Your task to perform on an android device: Do I have any events this weekend? Image 0: 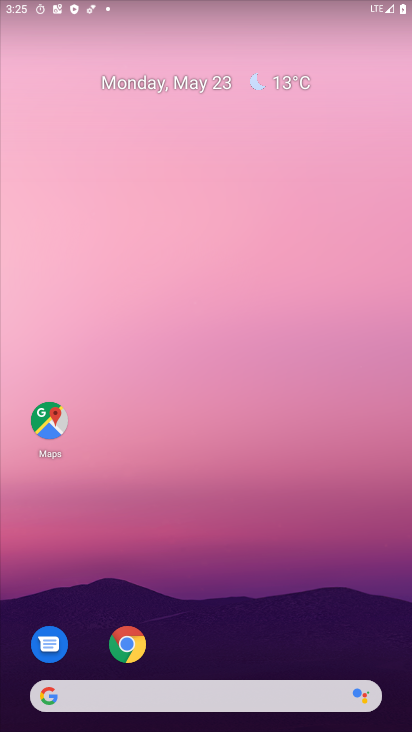
Step 0: drag from (210, 674) to (153, 75)
Your task to perform on an android device: Do I have any events this weekend? Image 1: 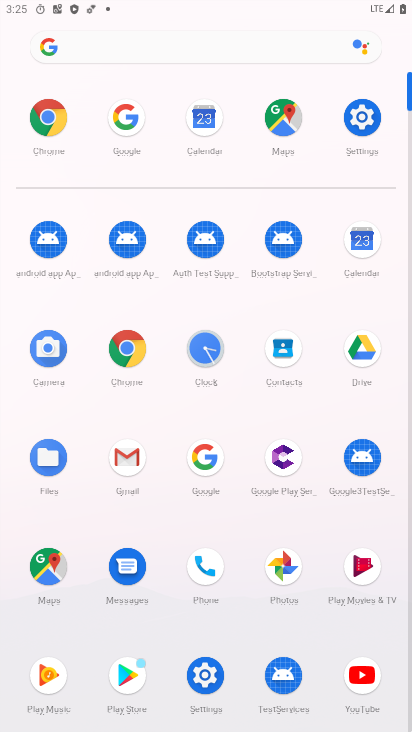
Step 1: click (366, 247)
Your task to perform on an android device: Do I have any events this weekend? Image 2: 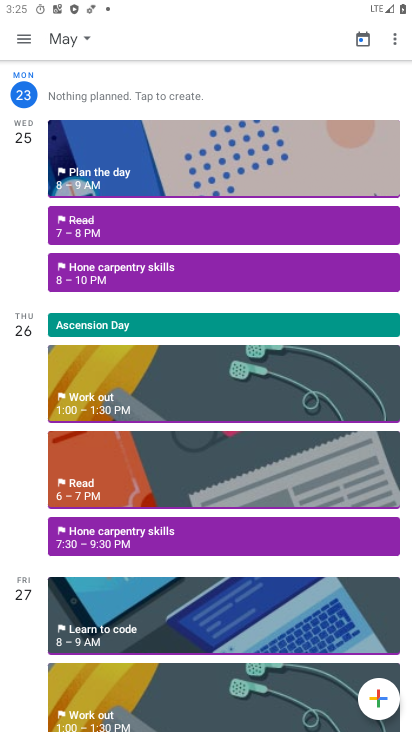
Step 2: click (24, 49)
Your task to perform on an android device: Do I have any events this weekend? Image 3: 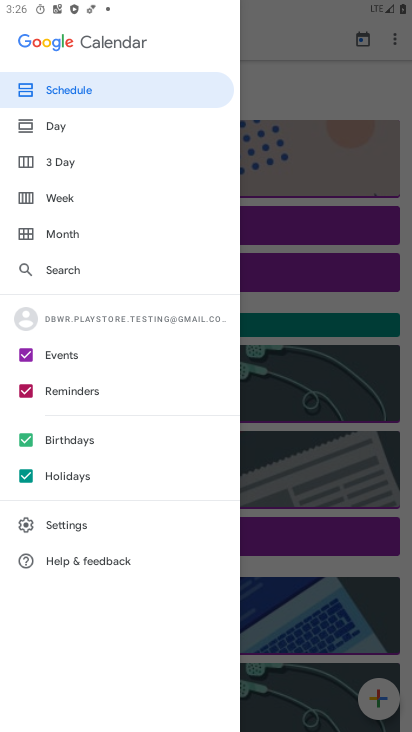
Step 3: click (63, 187)
Your task to perform on an android device: Do I have any events this weekend? Image 4: 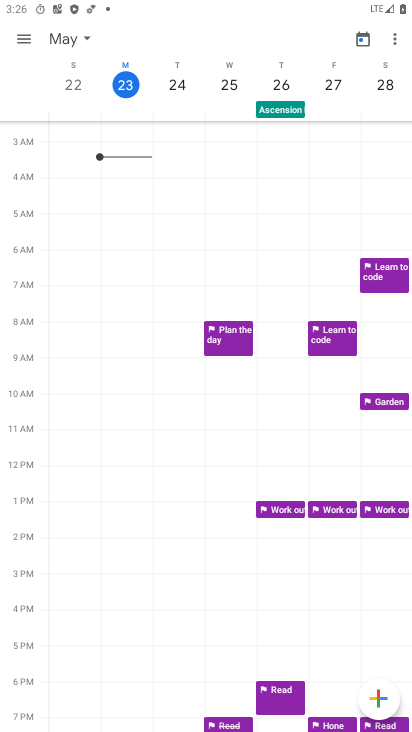
Step 4: click (280, 89)
Your task to perform on an android device: Do I have any events this weekend? Image 5: 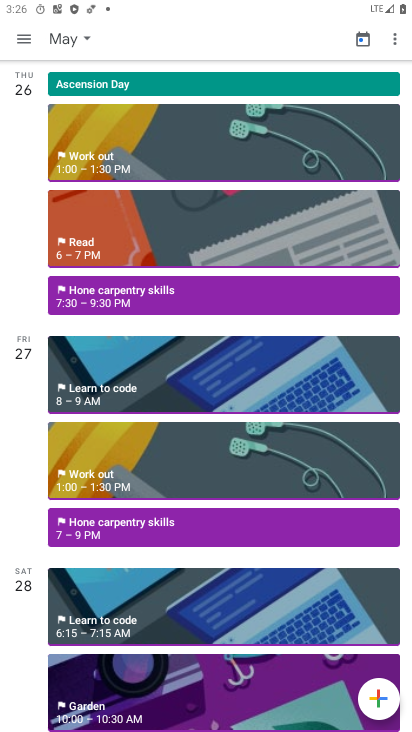
Step 5: task complete